Your task to perform on an android device: clear history in the chrome app Image 0: 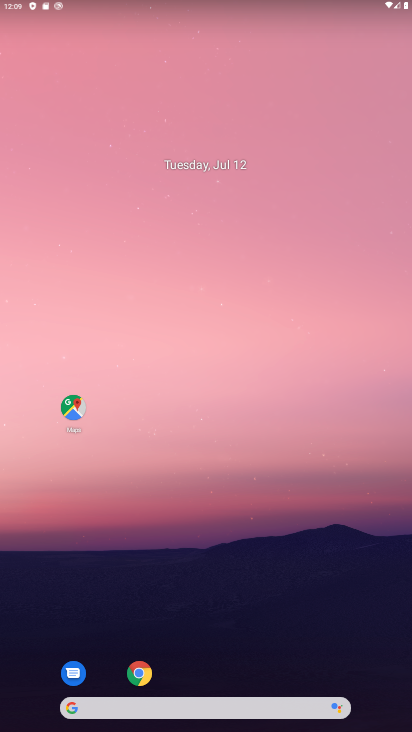
Step 0: drag from (219, 658) to (263, 98)
Your task to perform on an android device: clear history in the chrome app Image 1: 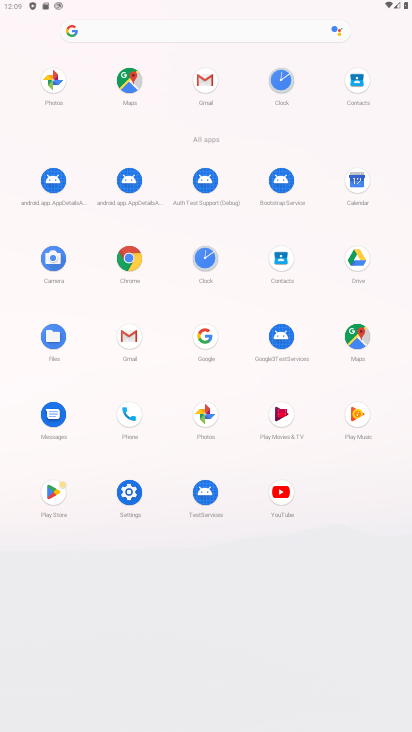
Step 1: click (137, 268)
Your task to perform on an android device: clear history in the chrome app Image 2: 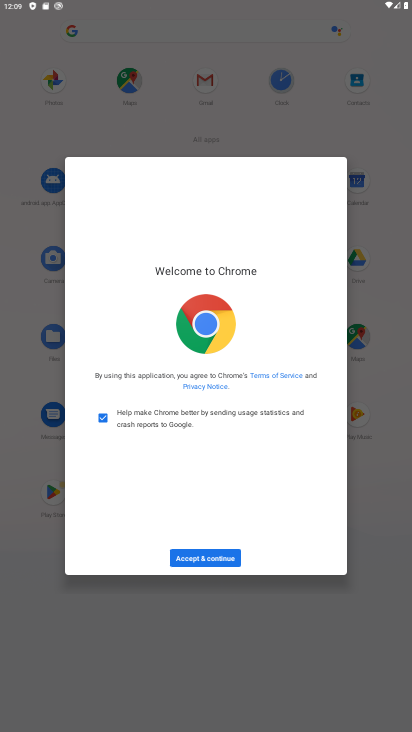
Step 2: click (211, 553)
Your task to perform on an android device: clear history in the chrome app Image 3: 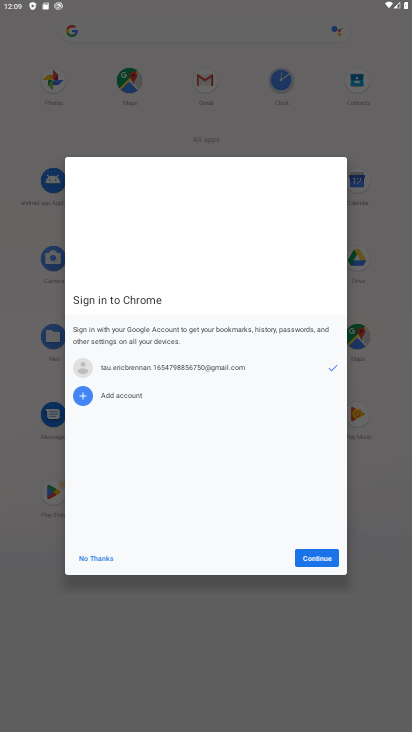
Step 3: click (308, 563)
Your task to perform on an android device: clear history in the chrome app Image 4: 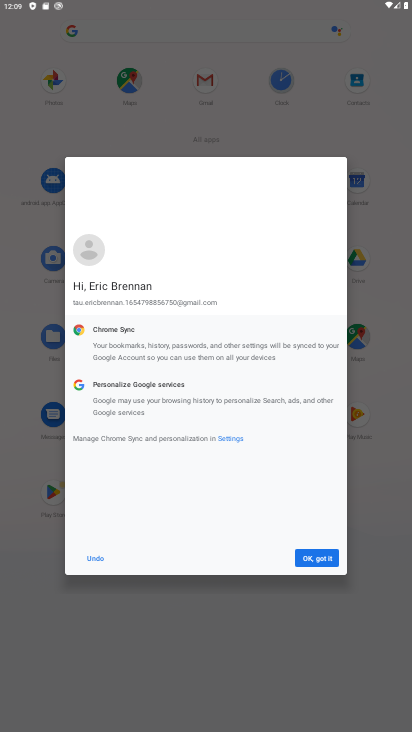
Step 4: click (309, 564)
Your task to perform on an android device: clear history in the chrome app Image 5: 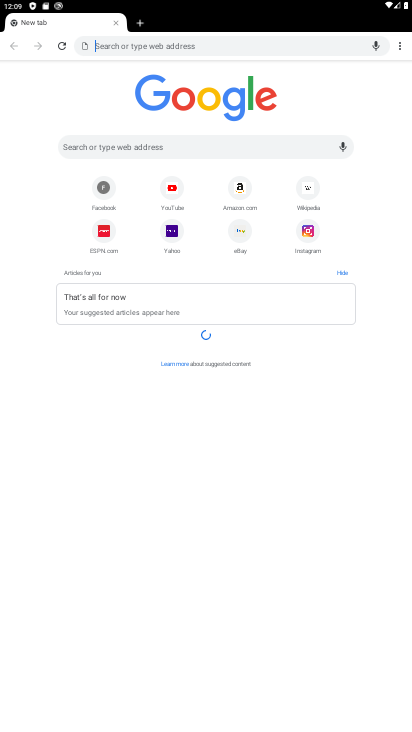
Step 5: drag from (401, 48) to (303, 139)
Your task to perform on an android device: clear history in the chrome app Image 6: 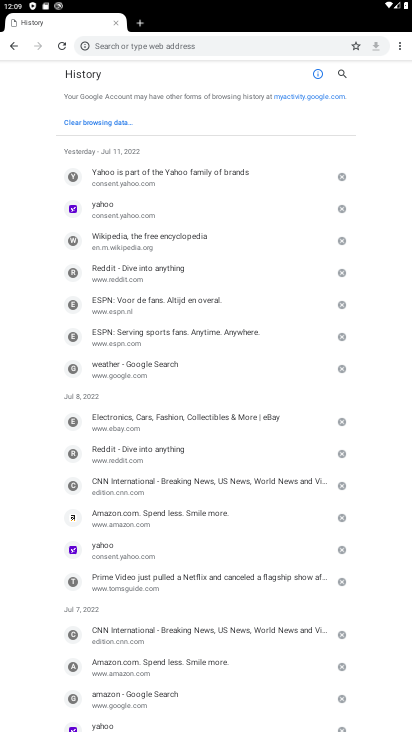
Step 6: click (95, 123)
Your task to perform on an android device: clear history in the chrome app Image 7: 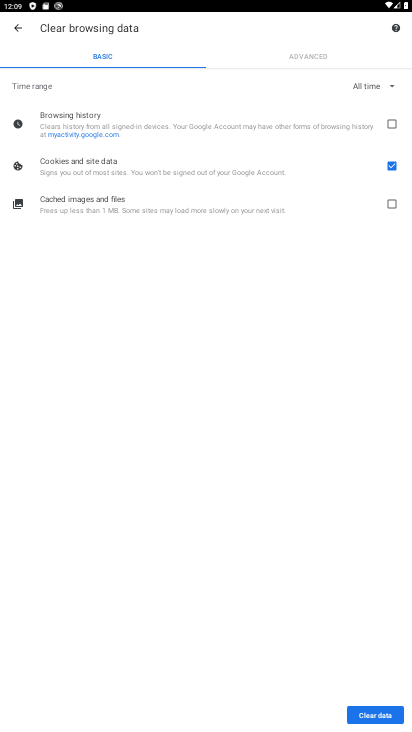
Step 7: click (386, 114)
Your task to perform on an android device: clear history in the chrome app Image 8: 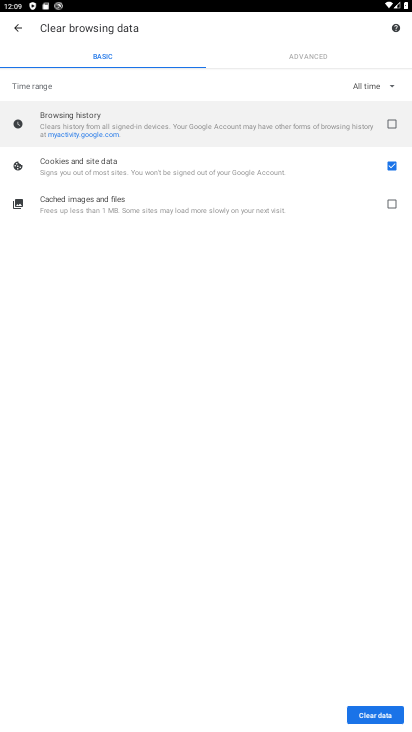
Step 8: click (392, 201)
Your task to perform on an android device: clear history in the chrome app Image 9: 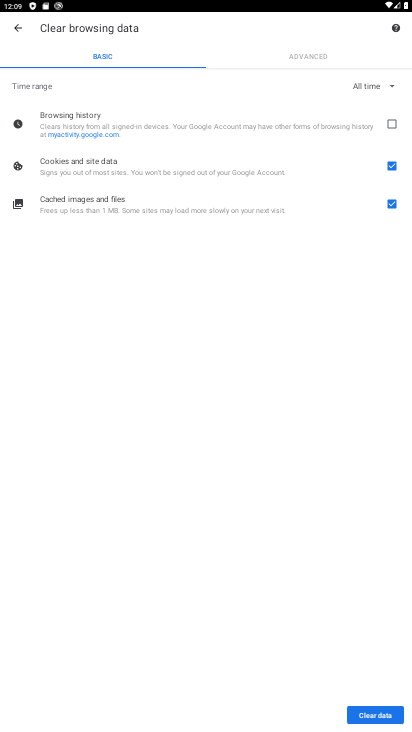
Step 9: click (394, 129)
Your task to perform on an android device: clear history in the chrome app Image 10: 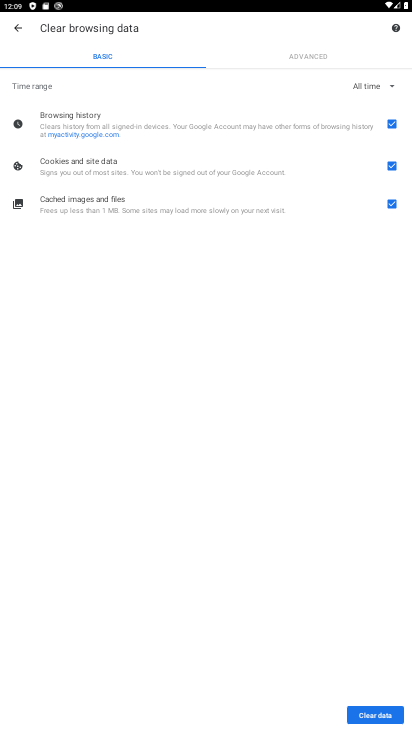
Step 10: click (373, 716)
Your task to perform on an android device: clear history in the chrome app Image 11: 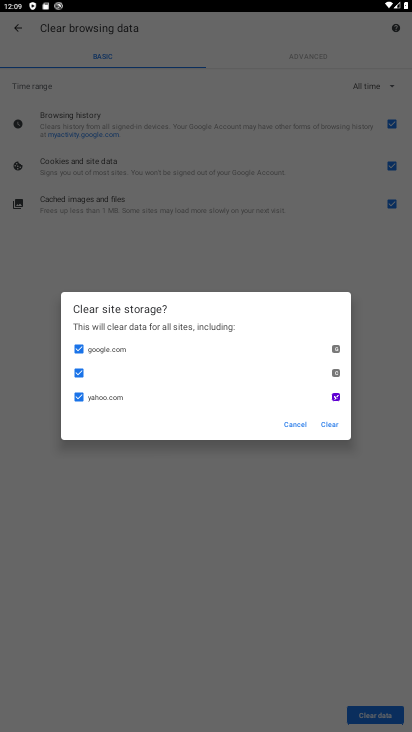
Step 11: click (333, 419)
Your task to perform on an android device: clear history in the chrome app Image 12: 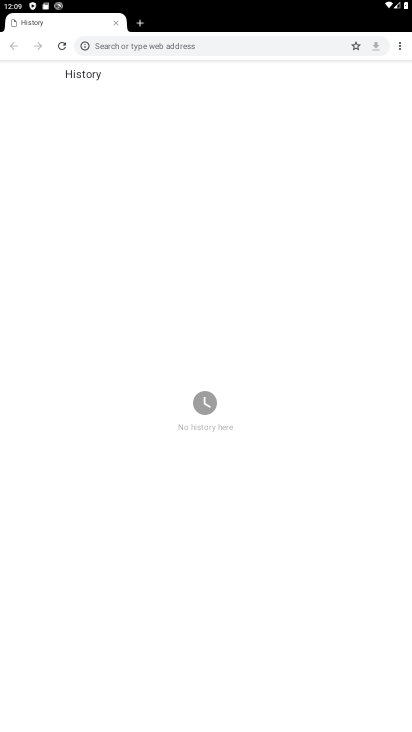
Step 12: task complete